Your task to perform on an android device: open chrome and create a bookmark for the current page Image 0: 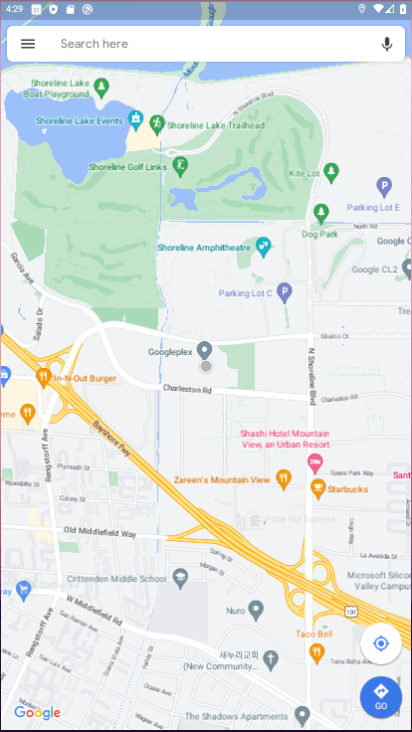
Step 0: press home button
Your task to perform on an android device: open chrome and create a bookmark for the current page Image 1: 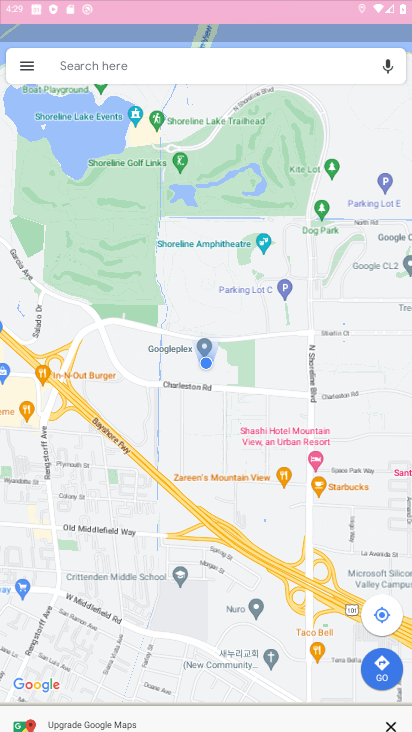
Step 1: press home button
Your task to perform on an android device: open chrome and create a bookmark for the current page Image 2: 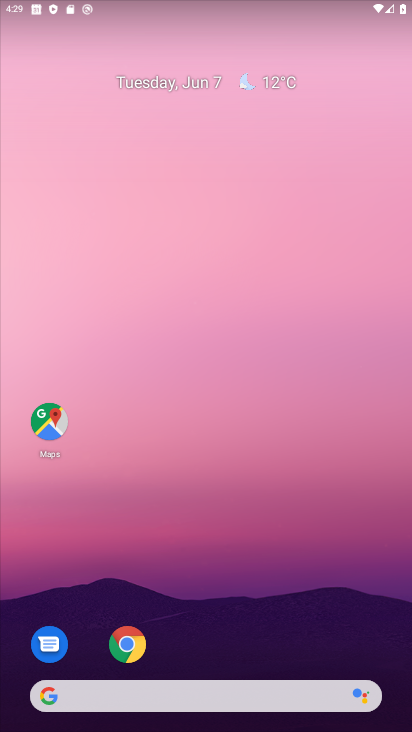
Step 2: click (124, 660)
Your task to perform on an android device: open chrome and create a bookmark for the current page Image 3: 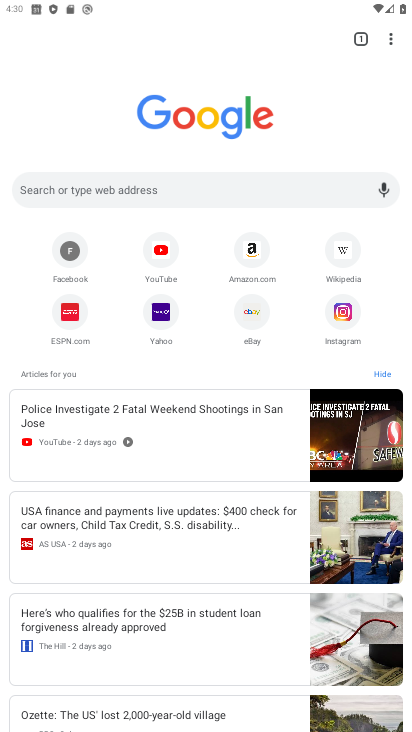
Step 3: click (393, 30)
Your task to perform on an android device: open chrome and create a bookmark for the current page Image 4: 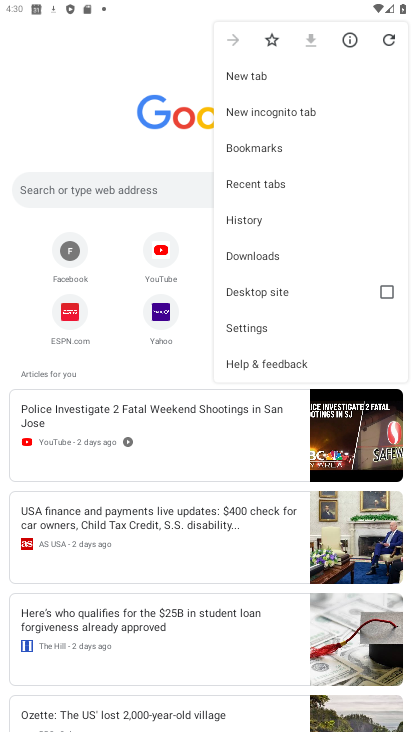
Step 4: click (269, 33)
Your task to perform on an android device: open chrome and create a bookmark for the current page Image 5: 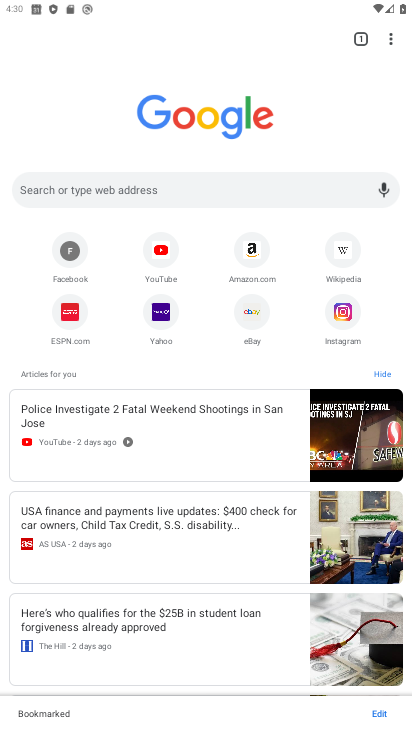
Step 5: click (389, 39)
Your task to perform on an android device: open chrome and create a bookmark for the current page Image 6: 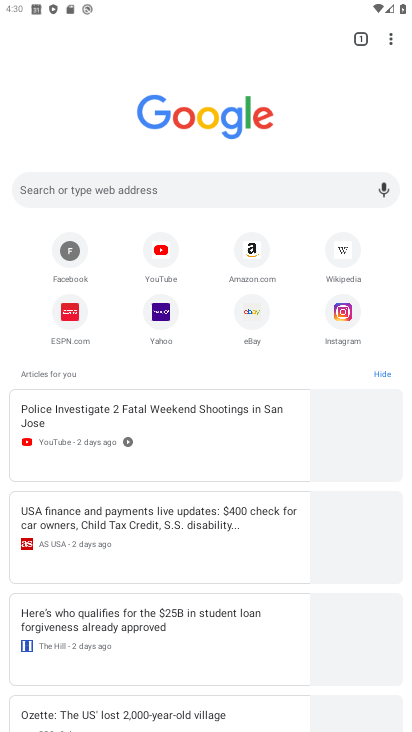
Step 6: task complete